Your task to perform on an android device: Open CNN.com Image 0: 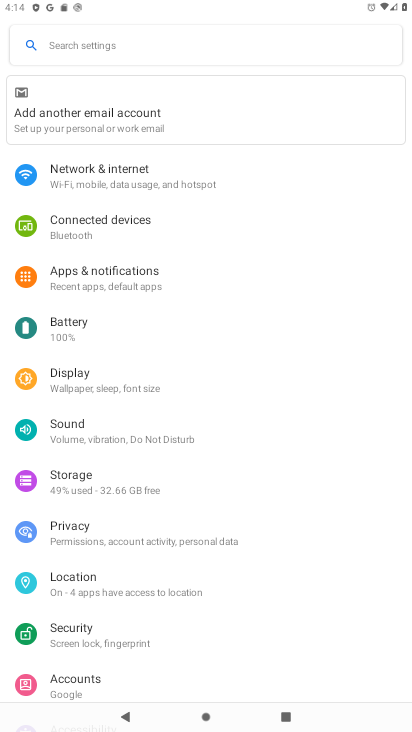
Step 0: press home button
Your task to perform on an android device: Open CNN.com Image 1: 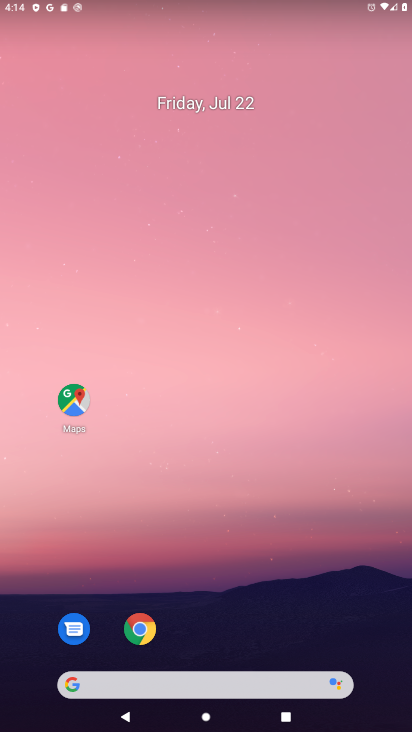
Step 1: drag from (274, 692) to (312, 258)
Your task to perform on an android device: Open CNN.com Image 2: 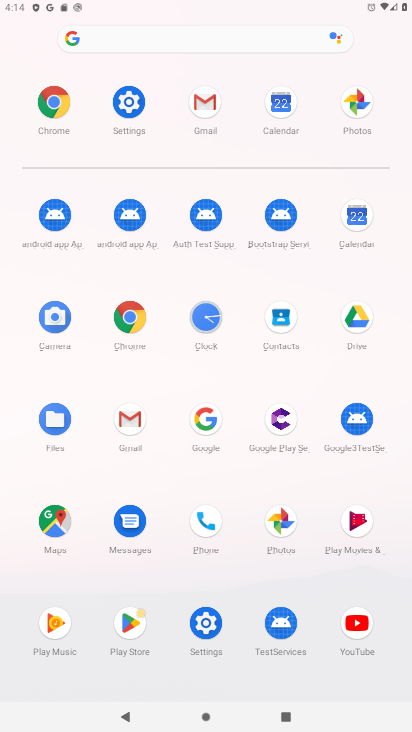
Step 2: click (138, 339)
Your task to perform on an android device: Open CNN.com Image 3: 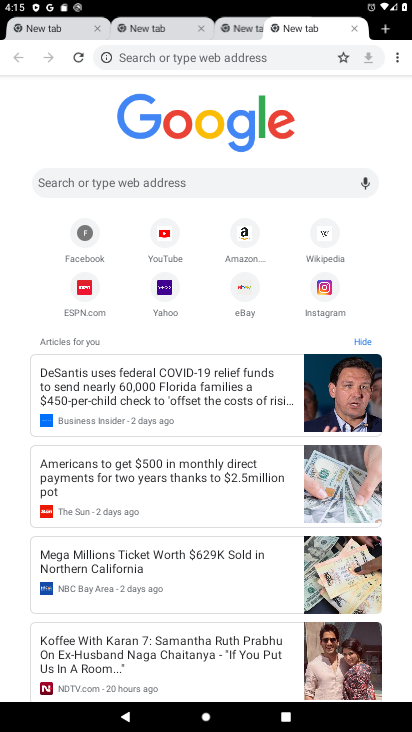
Step 3: click (189, 190)
Your task to perform on an android device: Open CNN.com Image 4: 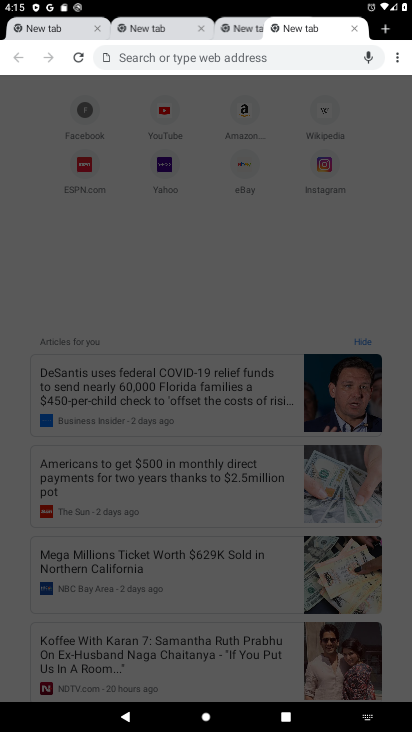
Step 4: type "cnn"
Your task to perform on an android device: Open CNN.com Image 5: 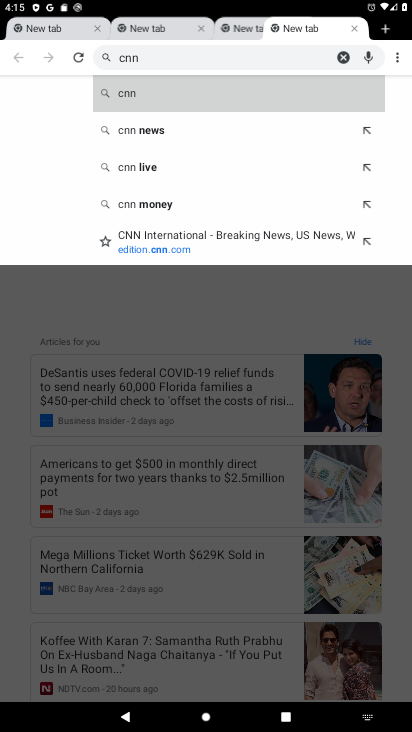
Step 5: click (196, 237)
Your task to perform on an android device: Open CNN.com Image 6: 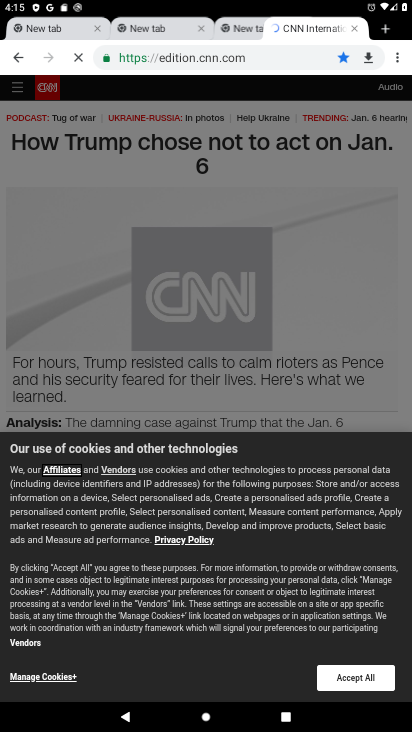
Step 6: task complete